Your task to perform on an android device: Open calendar and show me the first week of next month Image 0: 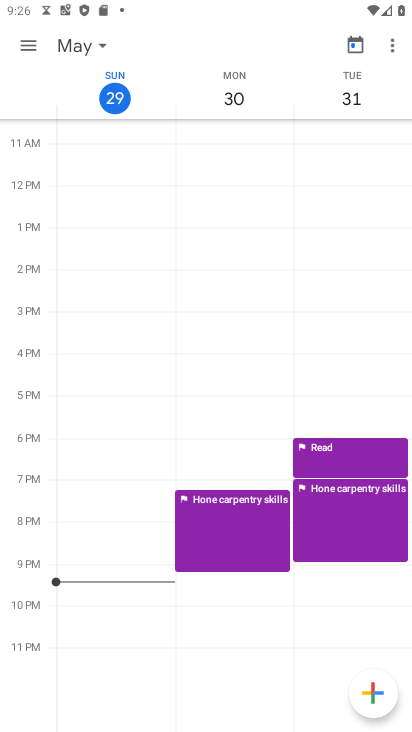
Step 0: click (27, 40)
Your task to perform on an android device: Open calendar and show me the first week of next month Image 1: 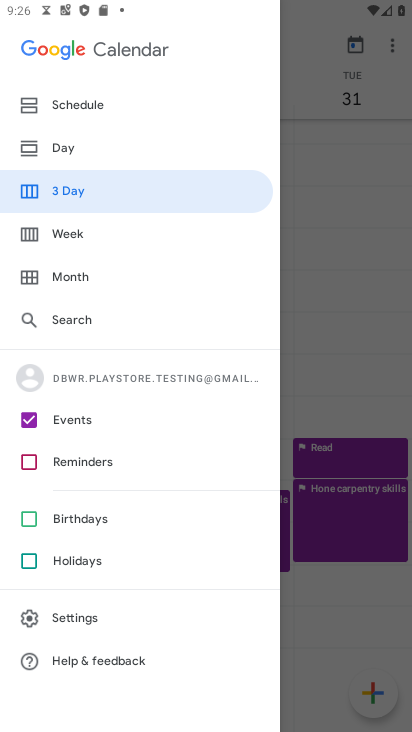
Step 1: click (80, 224)
Your task to perform on an android device: Open calendar and show me the first week of next month Image 2: 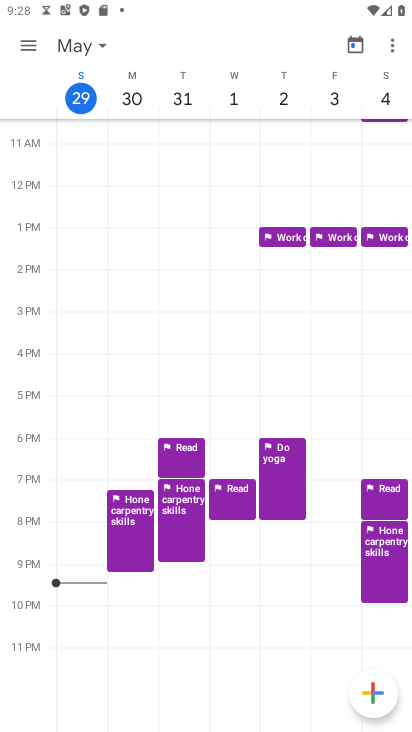
Step 2: click (106, 45)
Your task to perform on an android device: Open calendar and show me the first week of next month Image 3: 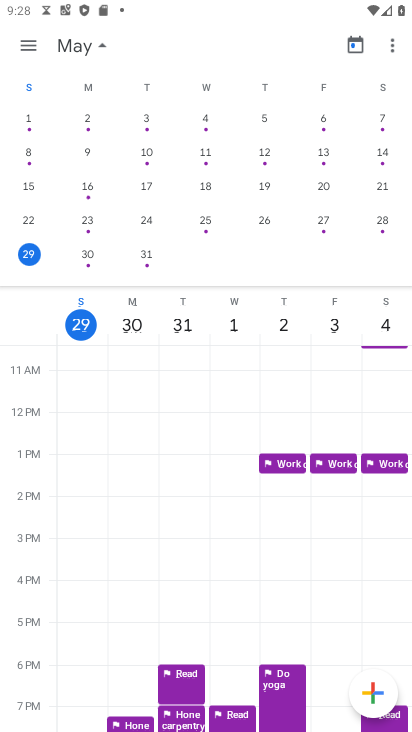
Step 3: drag from (356, 257) to (2, 190)
Your task to perform on an android device: Open calendar and show me the first week of next month Image 4: 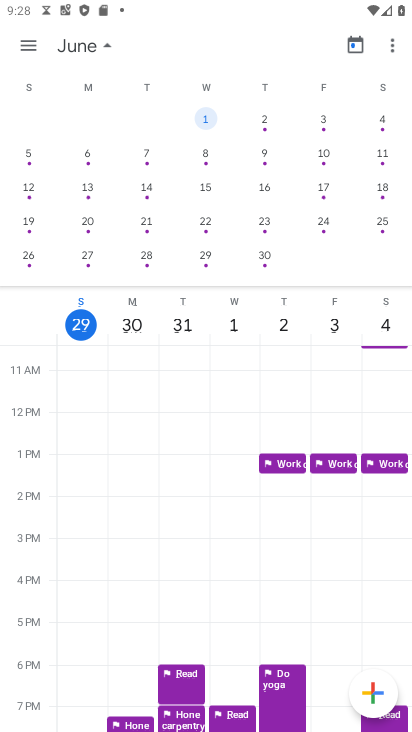
Step 4: click (255, 120)
Your task to perform on an android device: Open calendar and show me the first week of next month Image 5: 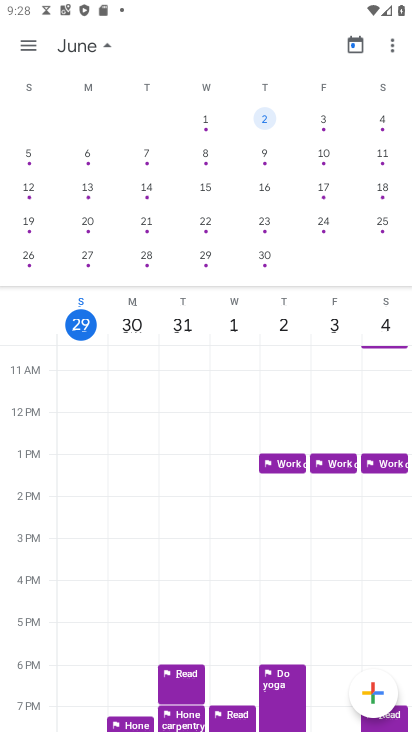
Step 5: task complete